Your task to perform on an android device: turn notification dots on Image 0: 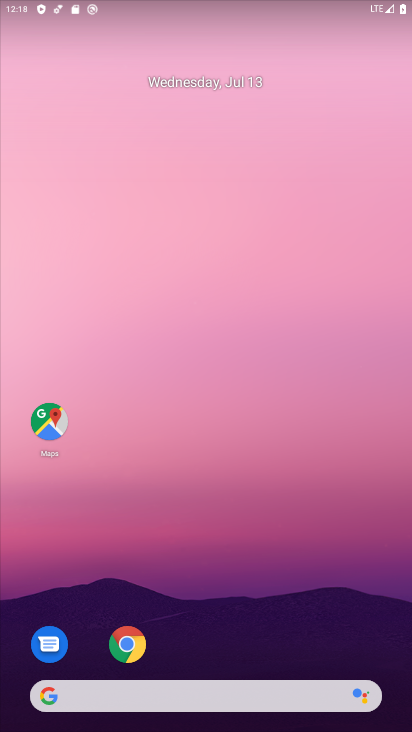
Step 0: drag from (196, 633) to (237, 51)
Your task to perform on an android device: turn notification dots on Image 1: 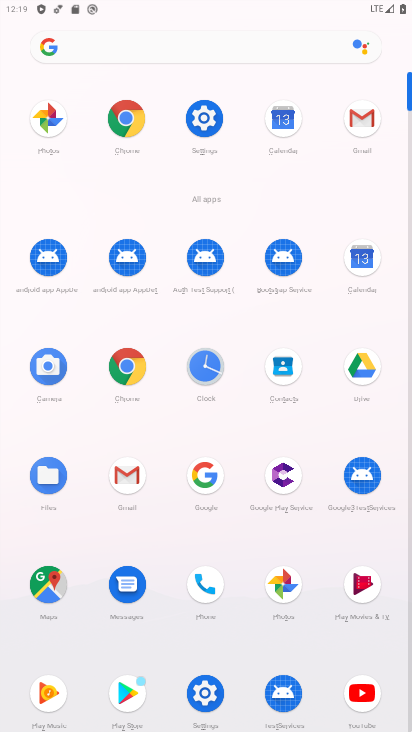
Step 1: click (202, 113)
Your task to perform on an android device: turn notification dots on Image 2: 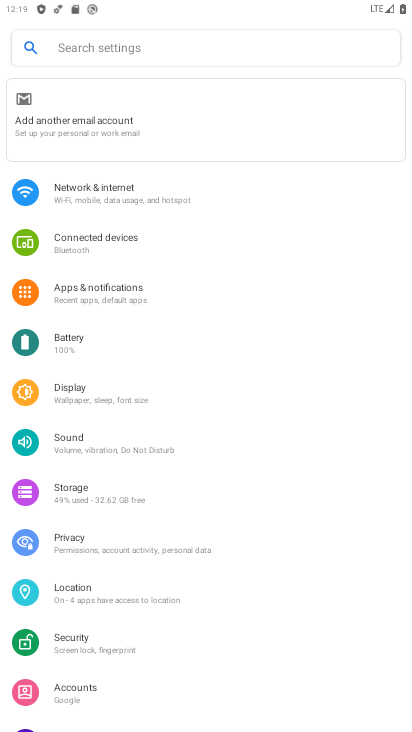
Step 2: click (139, 302)
Your task to perform on an android device: turn notification dots on Image 3: 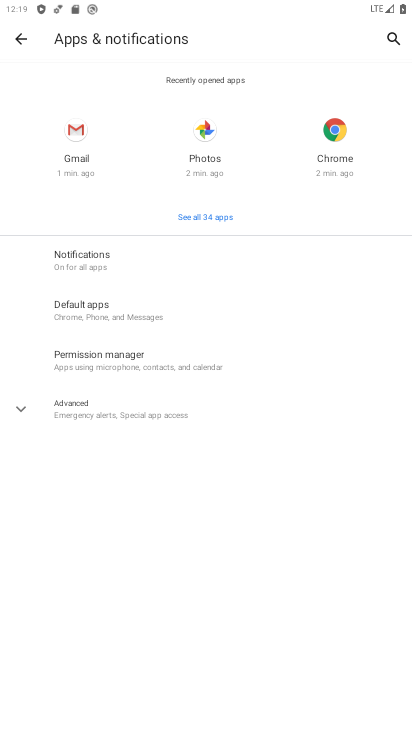
Step 3: click (58, 265)
Your task to perform on an android device: turn notification dots on Image 4: 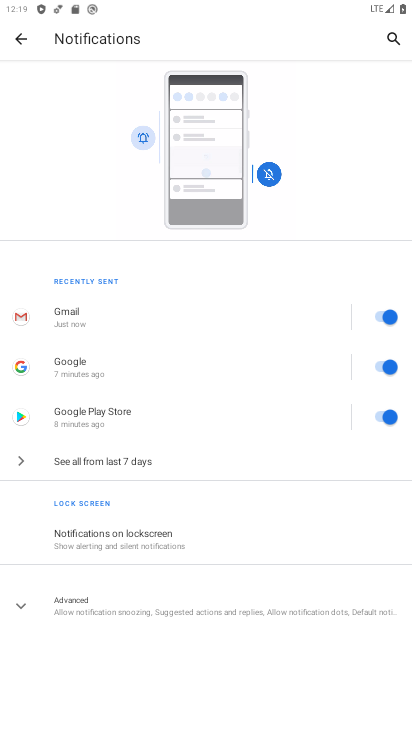
Step 4: click (80, 611)
Your task to perform on an android device: turn notification dots on Image 5: 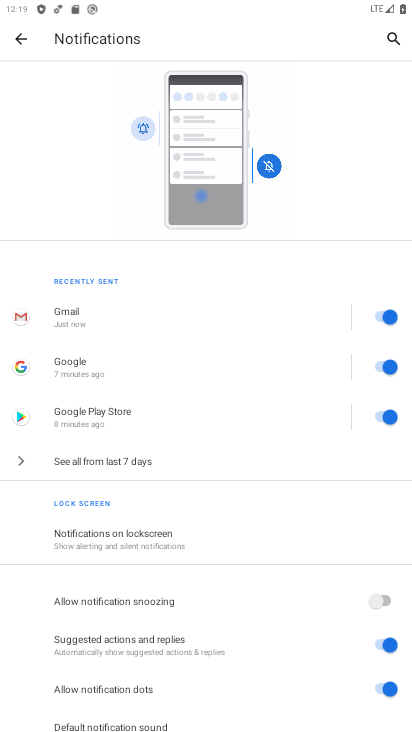
Step 5: task complete